Your task to perform on an android device: empty trash in the gmail app Image 0: 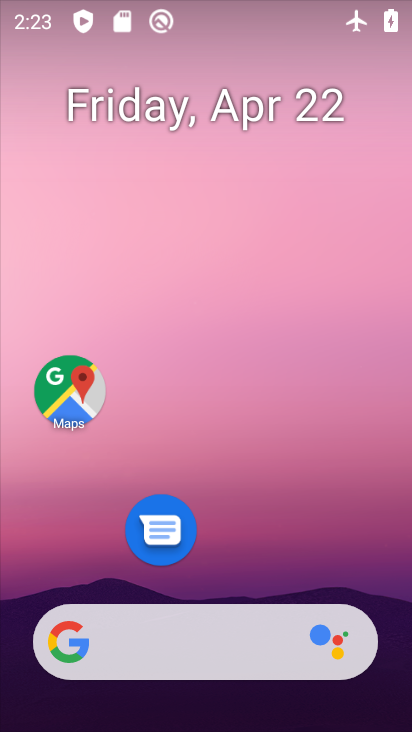
Step 0: drag from (275, 400) to (410, 82)
Your task to perform on an android device: empty trash in the gmail app Image 1: 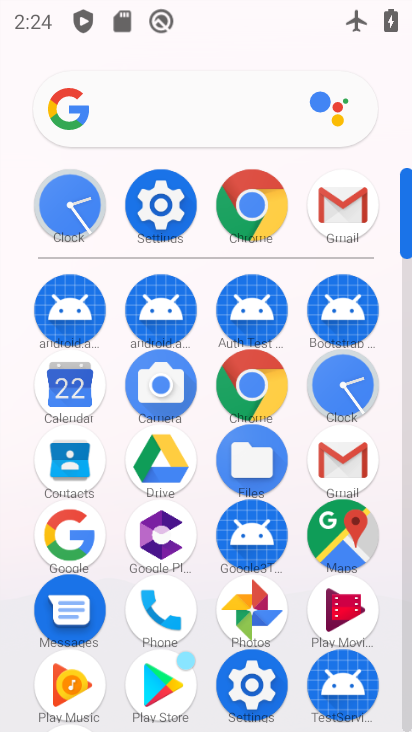
Step 1: click (336, 219)
Your task to perform on an android device: empty trash in the gmail app Image 2: 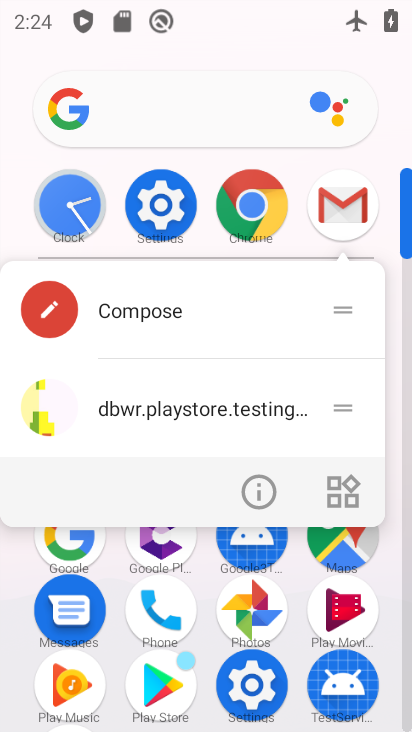
Step 2: click (339, 205)
Your task to perform on an android device: empty trash in the gmail app Image 3: 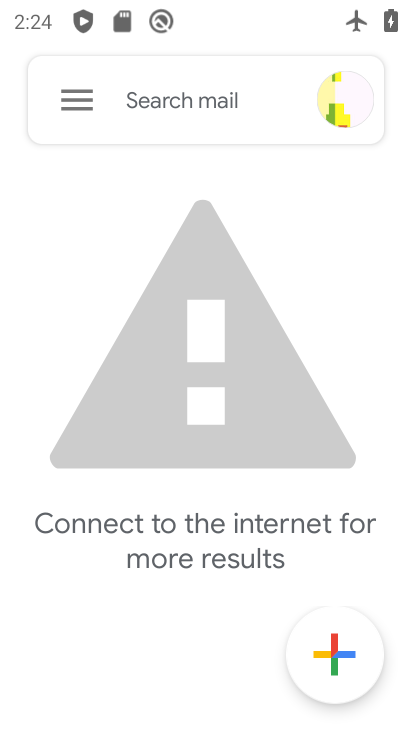
Step 3: click (82, 105)
Your task to perform on an android device: empty trash in the gmail app Image 4: 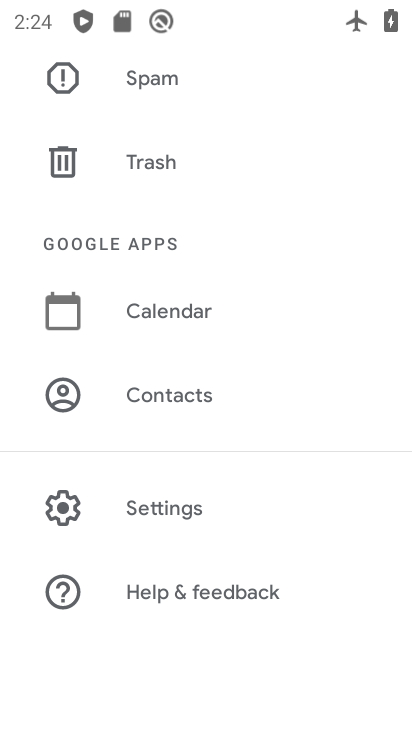
Step 4: click (165, 156)
Your task to perform on an android device: empty trash in the gmail app Image 5: 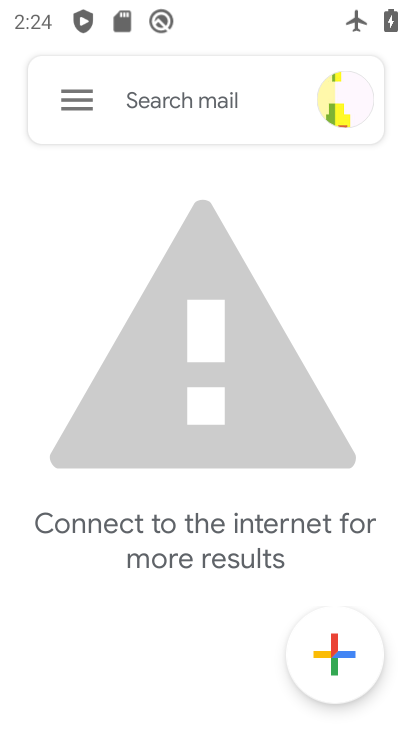
Step 5: click (75, 94)
Your task to perform on an android device: empty trash in the gmail app Image 6: 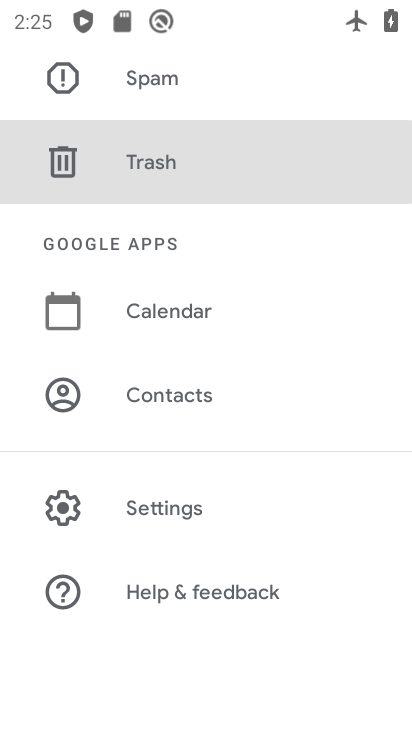
Step 6: click (141, 163)
Your task to perform on an android device: empty trash in the gmail app Image 7: 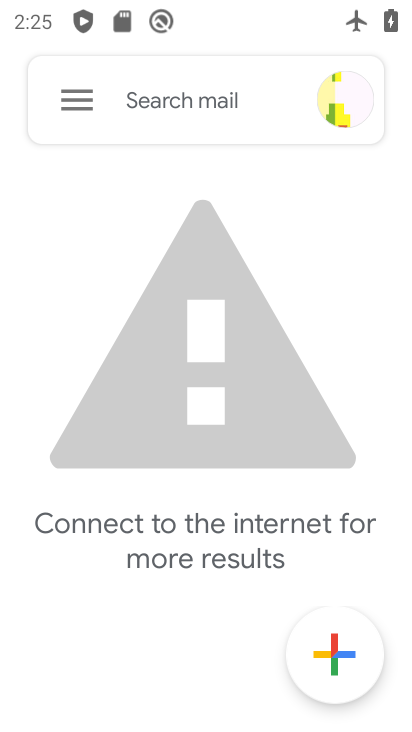
Step 7: task complete